Your task to perform on an android device: turn on wifi Image 0: 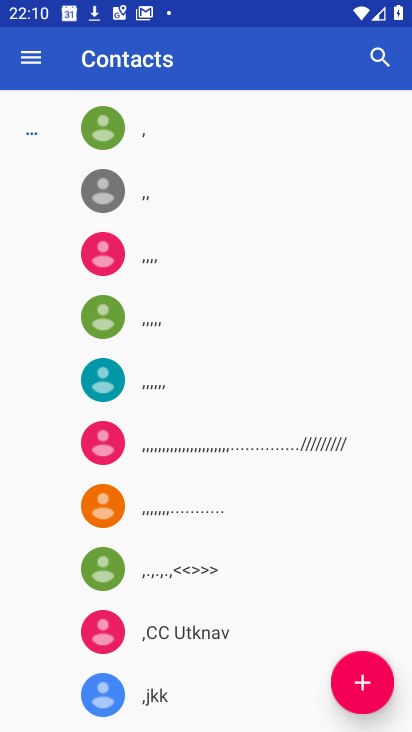
Step 0: press home button
Your task to perform on an android device: turn on wifi Image 1: 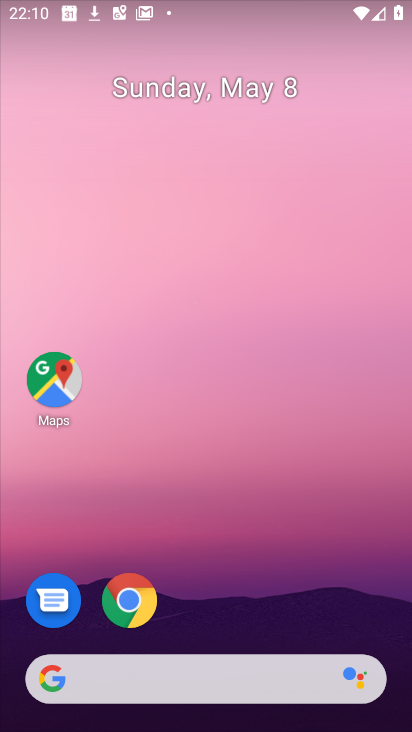
Step 1: drag from (267, 701) to (320, 232)
Your task to perform on an android device: turn on wifi Image 2: 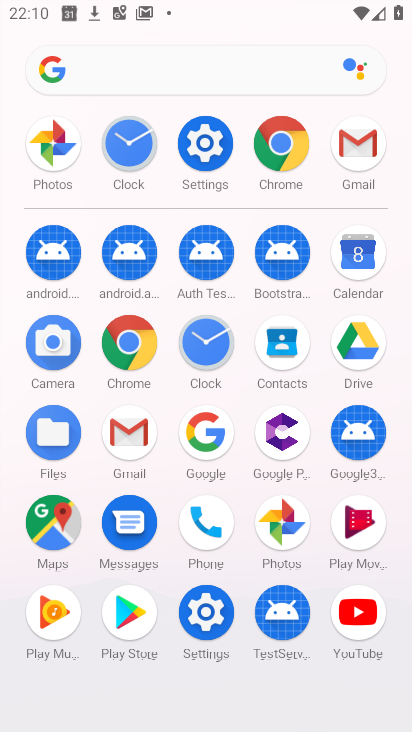
Step 2: click (185, 175)
Your task to perform on an android device: turn on wifi Image 3: 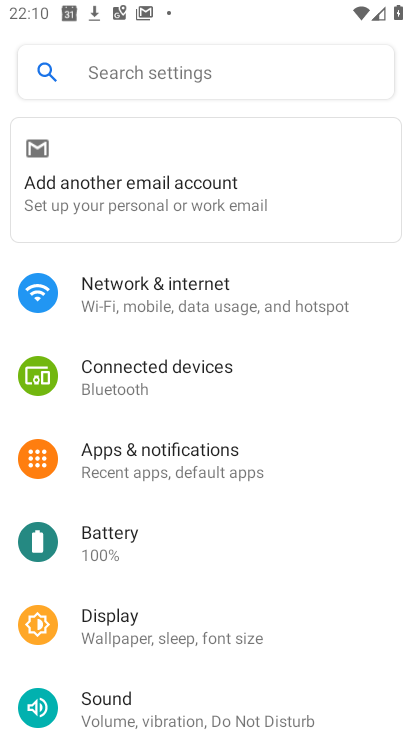
Step 3: click (146, 293)
Your task to perform on an android device: turn on wifi Image 4: 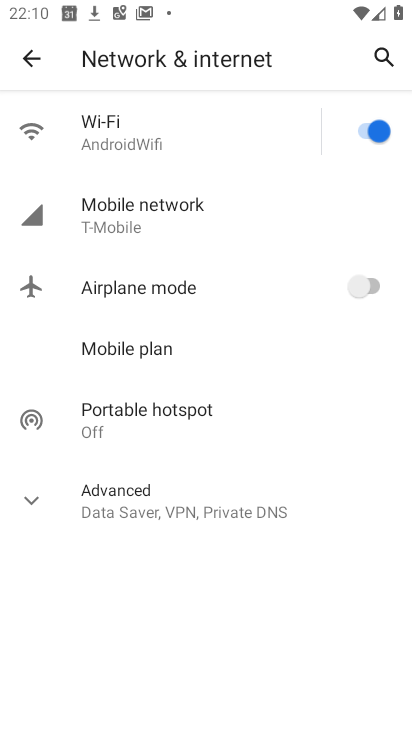
Step 4: click (240, 144)
Your task to perform on an android device: turn on wifi Image 5: 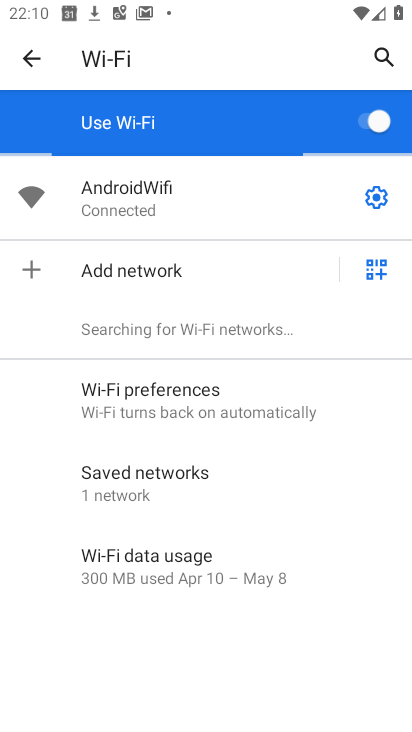
Step 5: click (370, 122)
Your task to perform on an android device: turn on wifi Image 6: 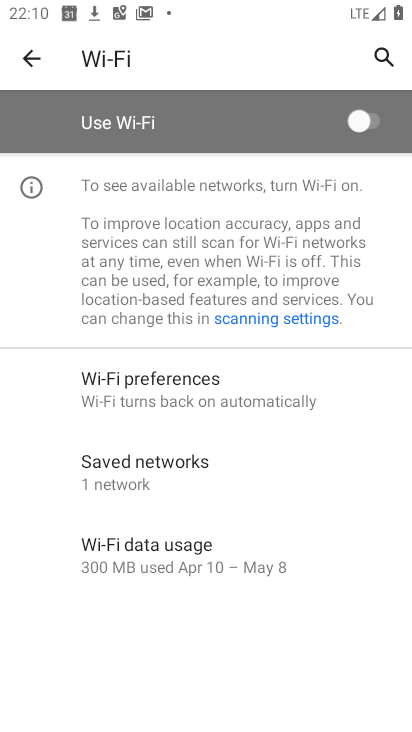
Step 6: click (369, 122)
Your task to perform on an android device: turn on wifi Image 7: 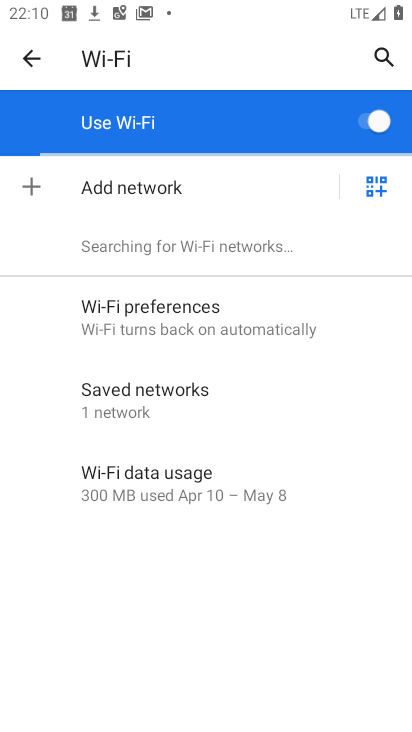
Step 7: task complete